Your task to perform on an android device: see creations saved in the google photos Image 0: 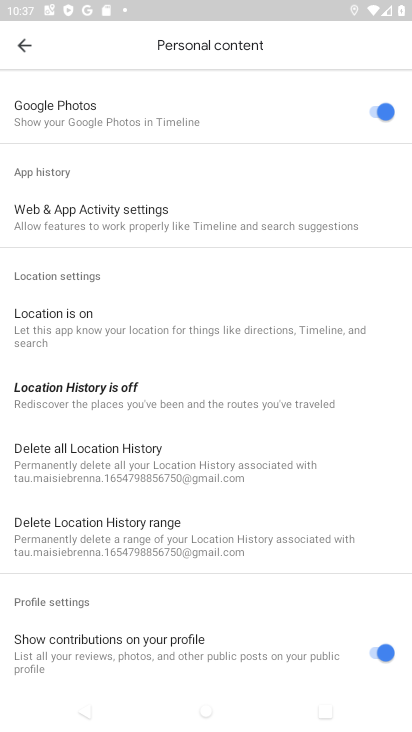
Step 0: press home button
Your task to perform on an android device: see creations saved in the google photos Image 1: 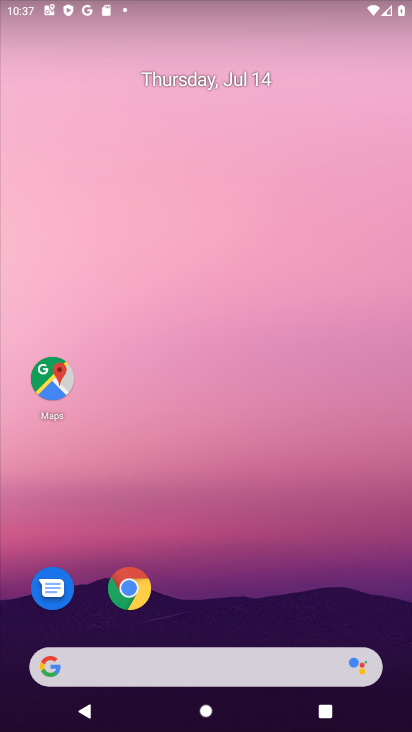
Step 1: drag from (134, 660) to (291, 94)
Your task to perform on an android device: see creations saved in the google photos Image 2: 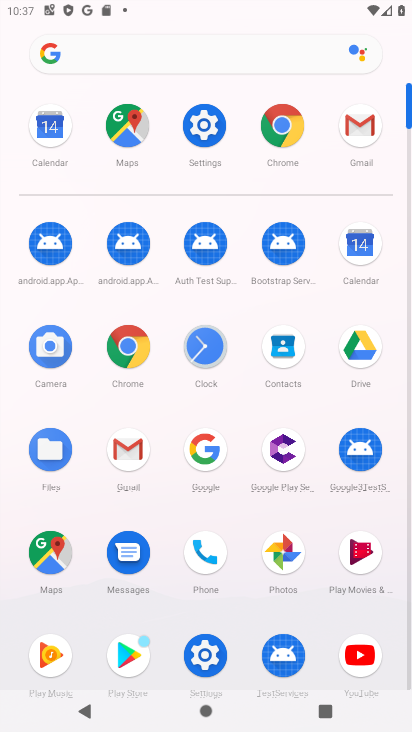
Step 2: click (291, 561)
Your task to perform on an android device: see creations saved in the google photos Image 3: 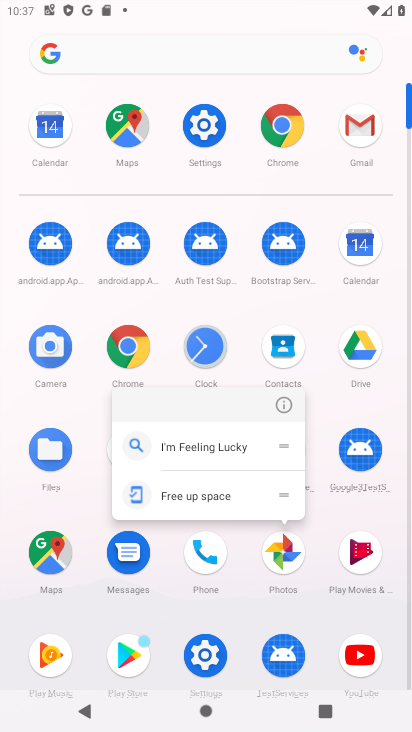
Step 3: click (280, 558)
Your task to perform on an android device: see creations saved in the google photos Image 4: 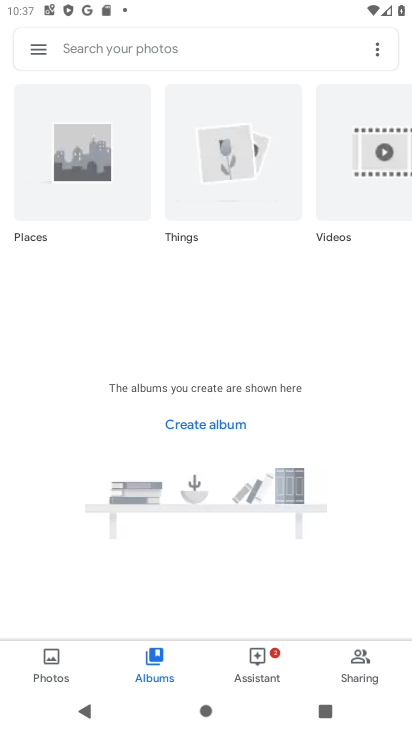
Step 4: click (143, 43)
Your task to perform on an android device: see creations saved in the google photos Image 5: 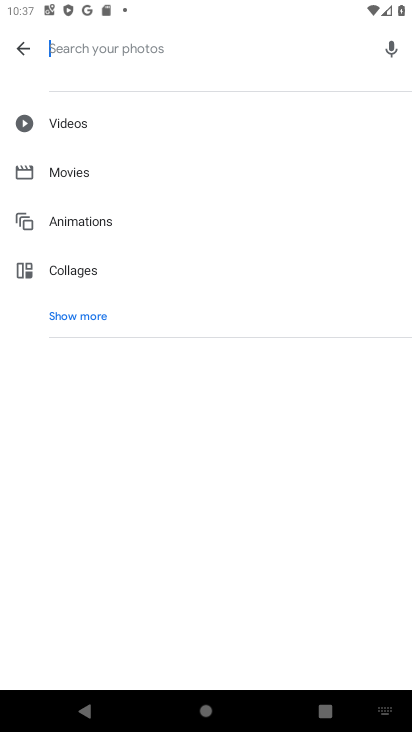
Step 5: click (74, 312)
Your task to perform on an android device: see creations saved in the google photos Image 6: 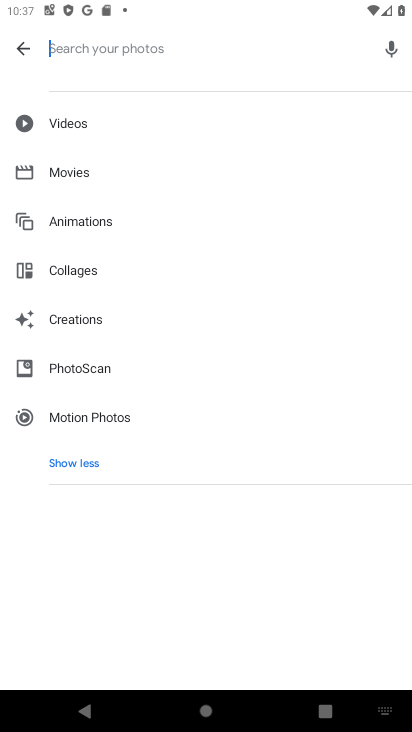
Step 6: click (85, 314)
Your task to perform on an android device: see creations saved in the google photos Image 7: 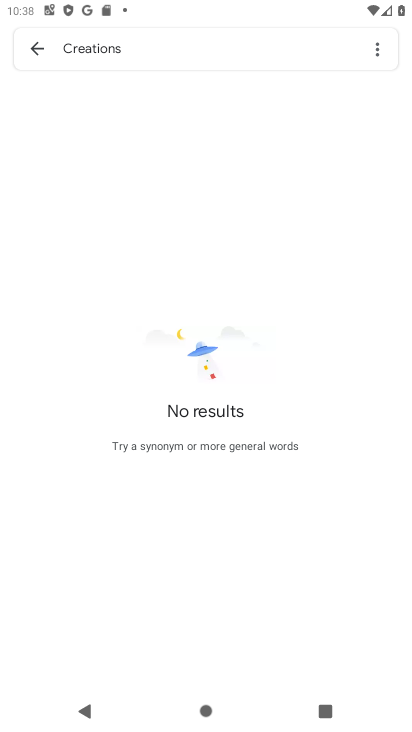
Step 7: task complete